Your task to perform on an android device: Open Google Maps and go to "Timeline" Image 0: 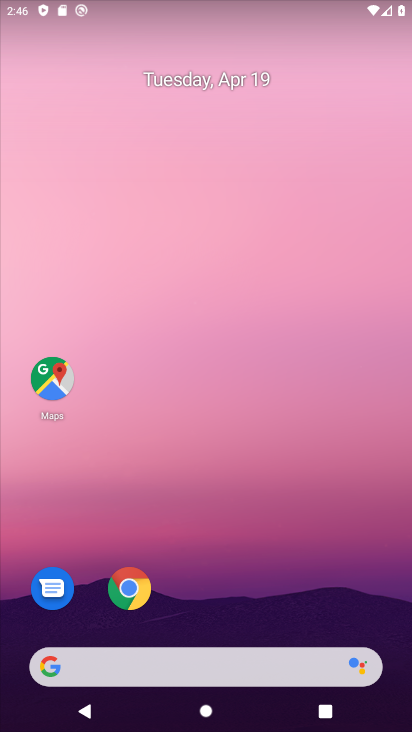
Step 0: click (223, 359)
Your task to perform on an android device: Open Google Maps and go to "Timeline" Image 1: 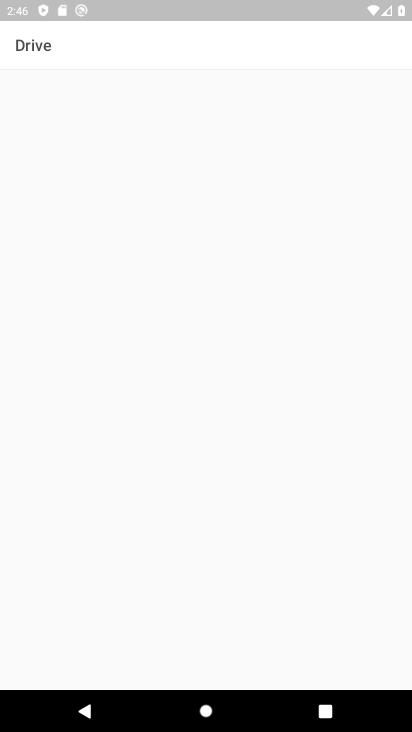
Step 1: press home button
Your task to perform on an android device: Open Google Maps and go to "Timeline" Image 2: 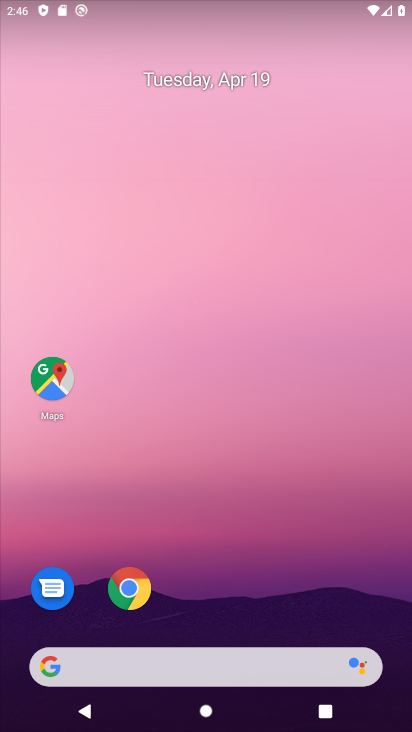
Step 2: drag from (242, 593) to (272, 316)
Your task to perform on an android device: Open Google Maps and go to "Timeline" Image 3: 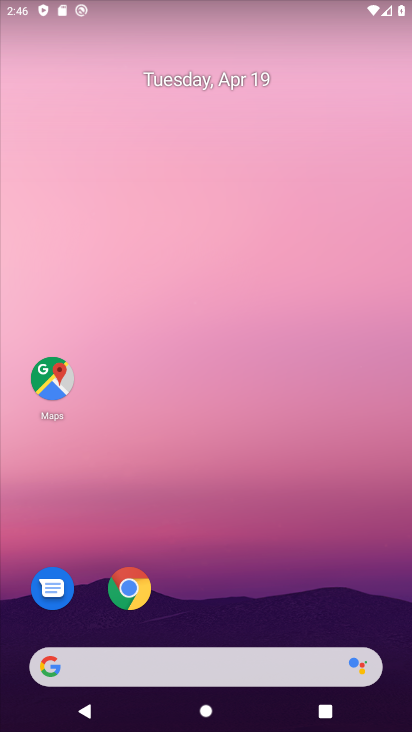
Step 3: drag from (201, 618) to (278, 345)
Your task to perform on an android device: Open Google Maps and go to "Timeline" Image 4: 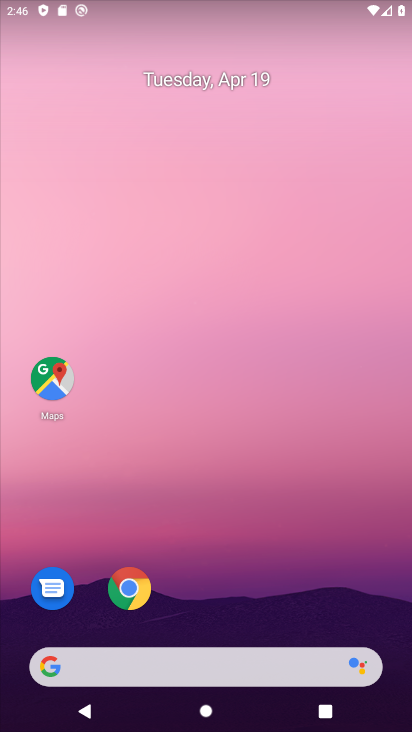
Step 4: drag from (196, 624) to (316, 303)
Your task to perform on an android device: Open Google Maps and go to "Timeline" Image 5: 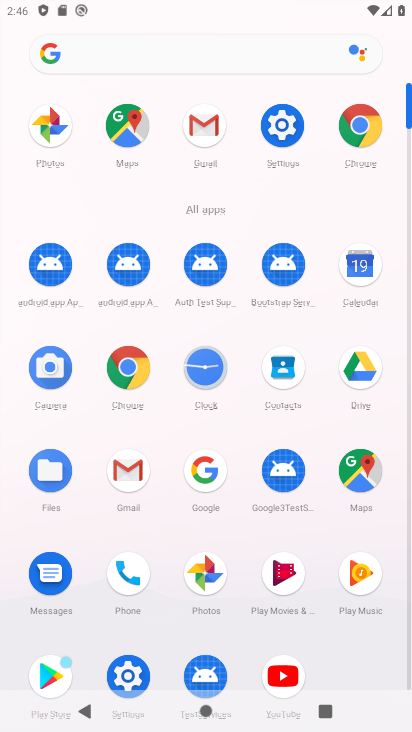
Step 5: click (346, 473)
Your task to perform on an android device: Open Google Maps and go to "Timeline" Image 6: 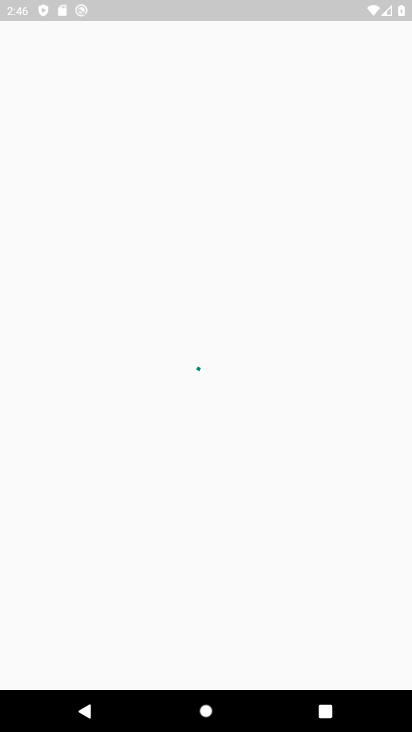
Step 6: drag from (224, 565) to (261, 428)
Your task to perform on an android device: Open Google Maps and go to "Timeline" Image 7: 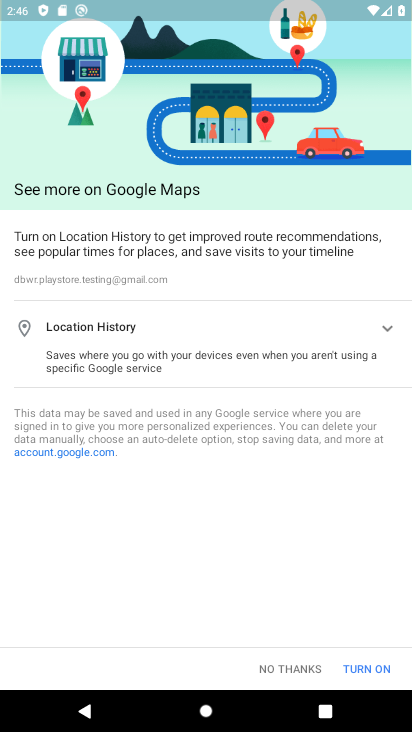
Step 7: click (366, 670)
Your task to perform on an android device: Open Google Maps and go to "Timeline" Image 8: 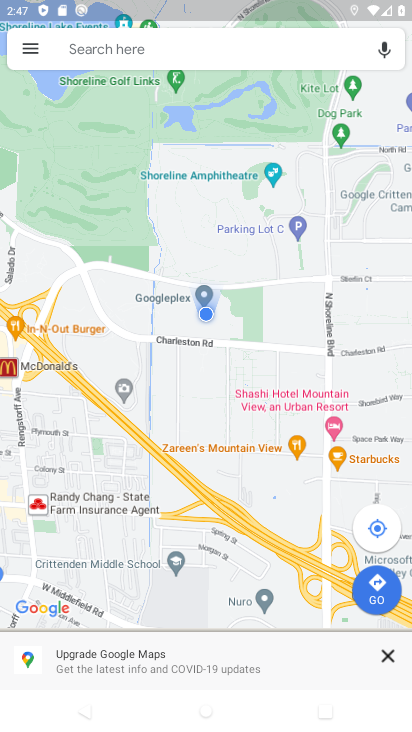
Step 8: drag from (198, 504) to (249, 260)
Your task to perform on an android device: Open Google Maps and go to "Timeline" Image 9: 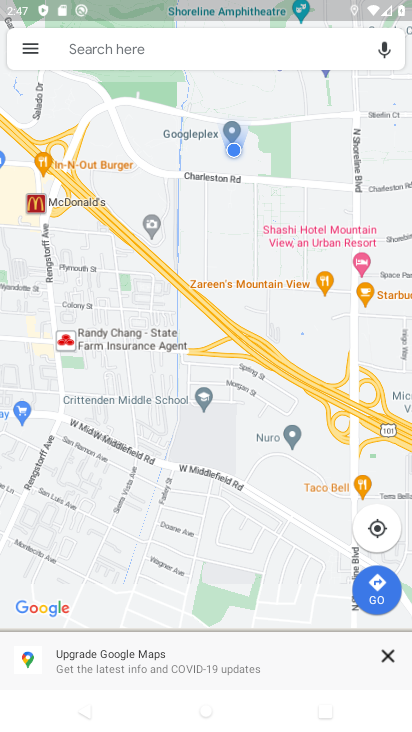
Step 9: drag from (247, 198) to (197, 616)
Your task to perform on an android device: Open Google Maps and go to "Timeline" Image 10: 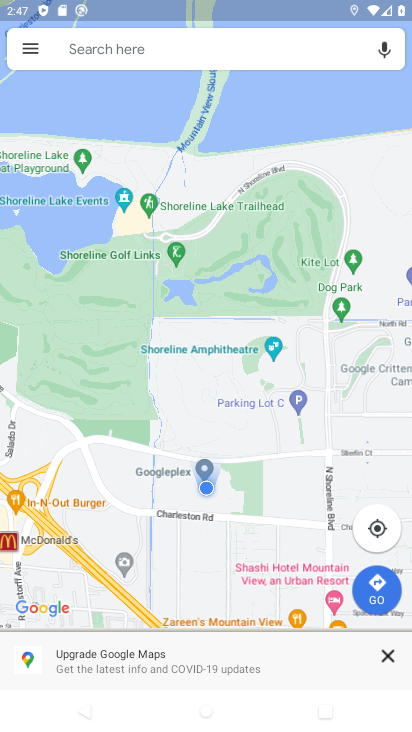
Step 10: drag from (254, 312) to (228, 580)
Your task to perform on an android device: Open Google Maps and go to "Timeline" Image 11: 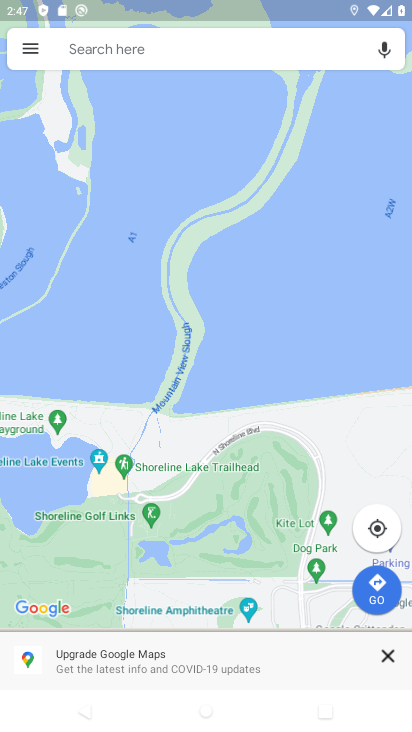
Step 11: click (27, 60)
Your task to perform on an android device: Open Google Maps and go to "Timeline" Image 12: 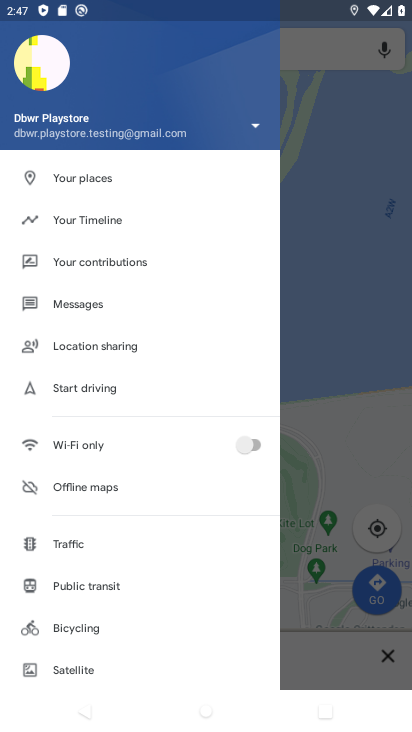
Step 12: click (73, 216)
Your task to perform on an android device: Open Google Maps and go to "Timeline" Image 13: 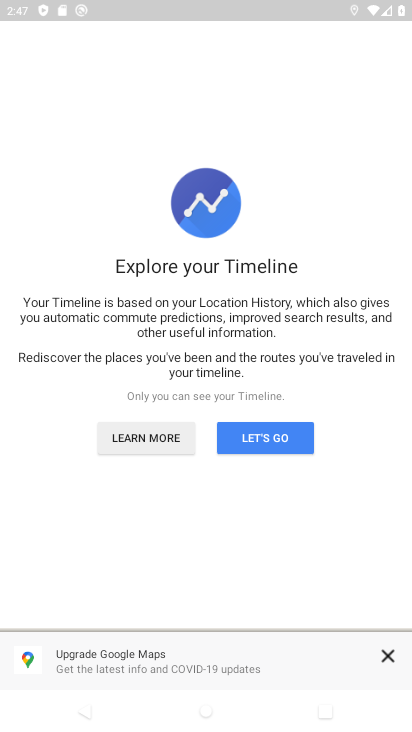
Step 13: click (278, 425)
Your task to perform on an android device: Open Google Maps and go to "Timeline" Image 14: 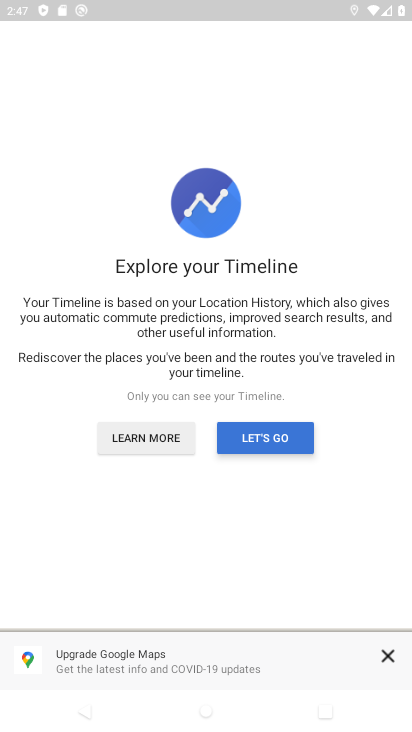
Step 14: task complete